Your task to perform on an android device: open app "Pluto TV - Live TV and Movies" (install if not already installed), go to login, and select forgot password Image 0: 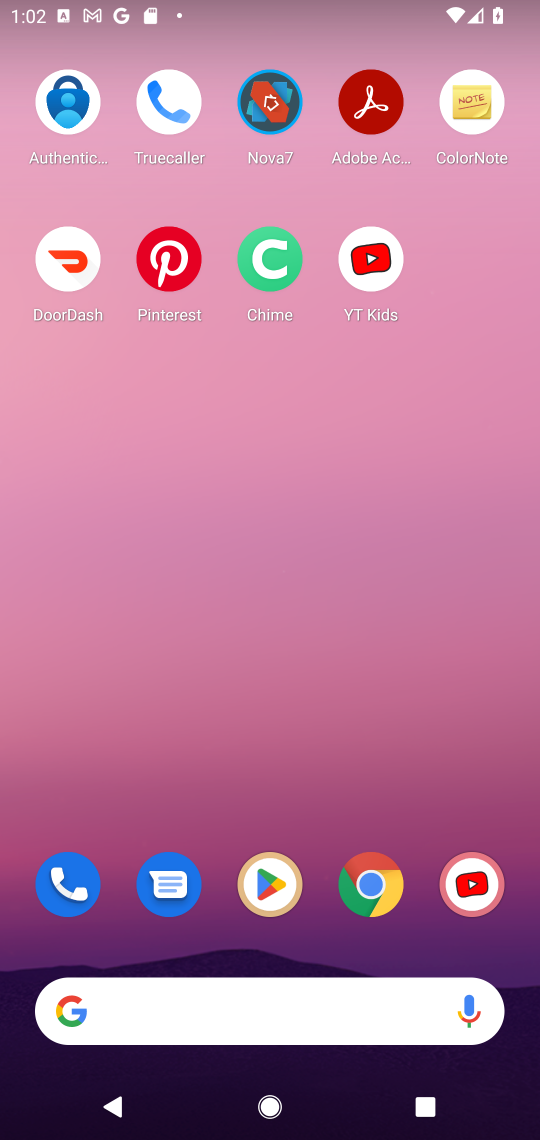
Step 0: drag from (180, 1025) to (234, 329)
Your task to perform on an android device: open app "Pluto TV - Live TV and Movies" (install if not already installed), go to login, and select forgot password Image 1: 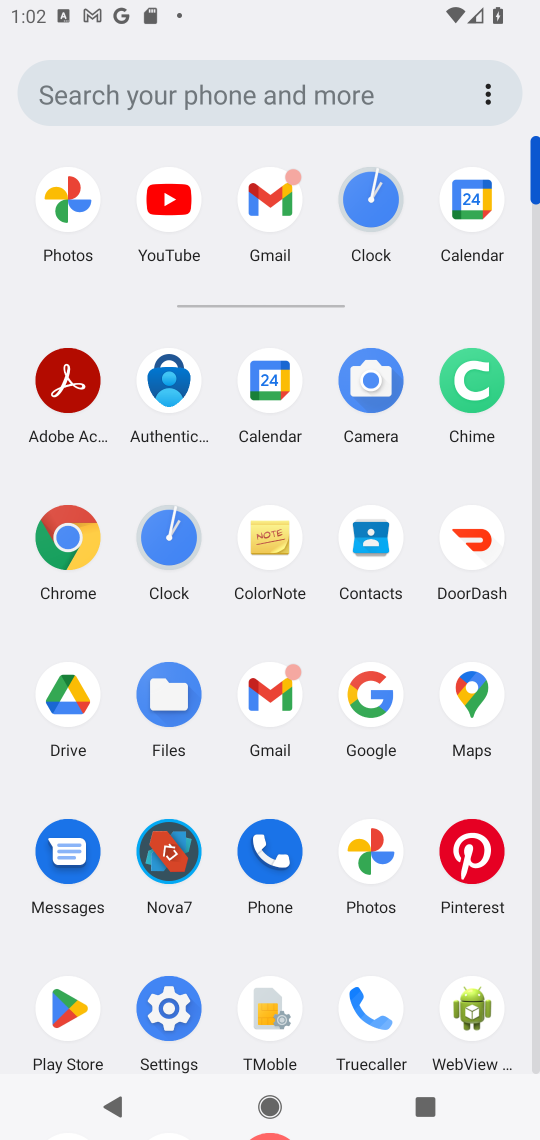
Step 1: click (64, 1015)
Your task to perform on an android device: open app "Pluto TV - Live TV and Movies" (install if not already installed), go to login, and select forgot password Image 2: 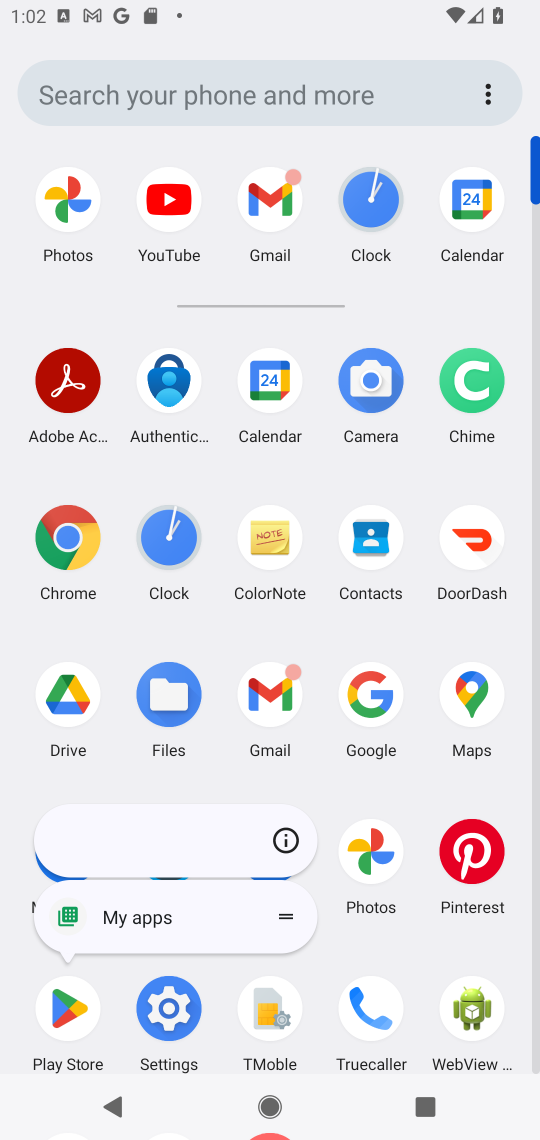
Step 2: click (64, 1015)
Your task to perform on an android device: open app "Pluto TV - Live TV and Movies" (install if not already installed), go to login, and select forgot password Image 3: 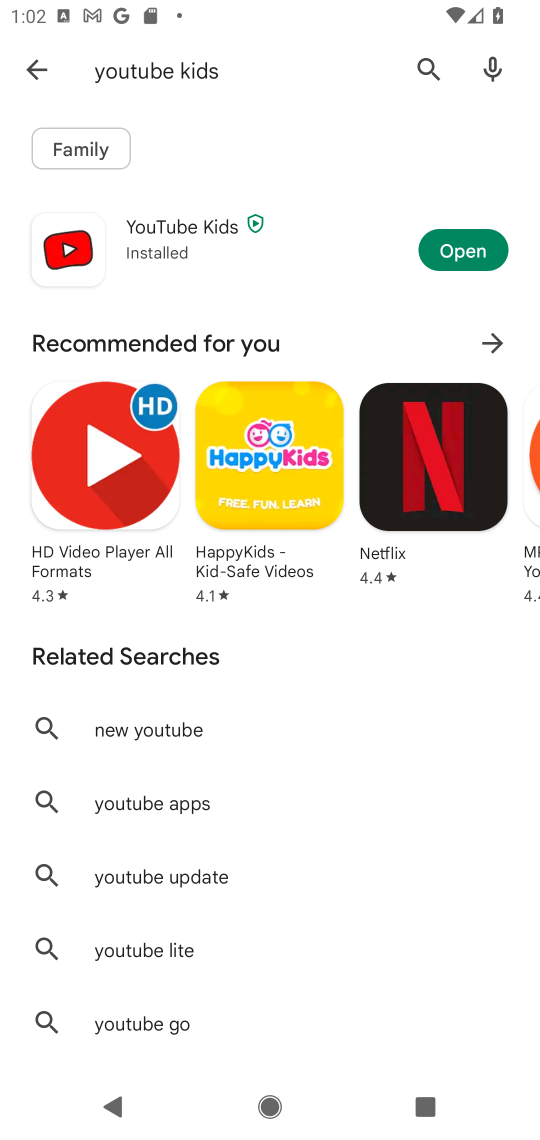
Step 3: press back button
Your task to perform on an android device: open app "Pluto TV - Live TV and Movies" (install if not already installed), go to login, and select forgot password Image 4: 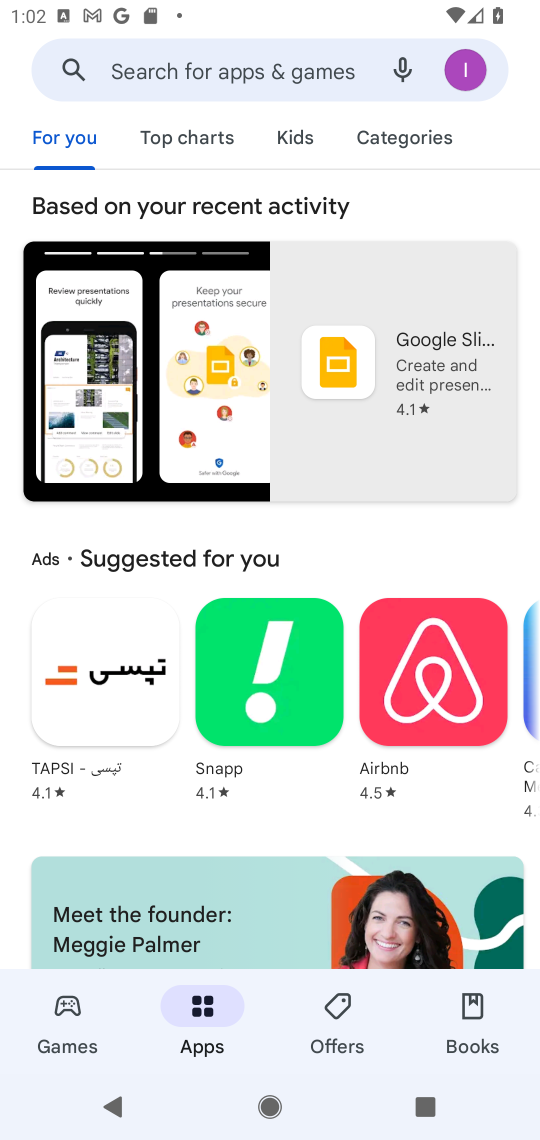
Step 4: click (209, 65)
Your task to perform on an android device: open app "Pluto TV - Live TV and Movies" (install if not already installed), go to login, and select forgot password Image 5: 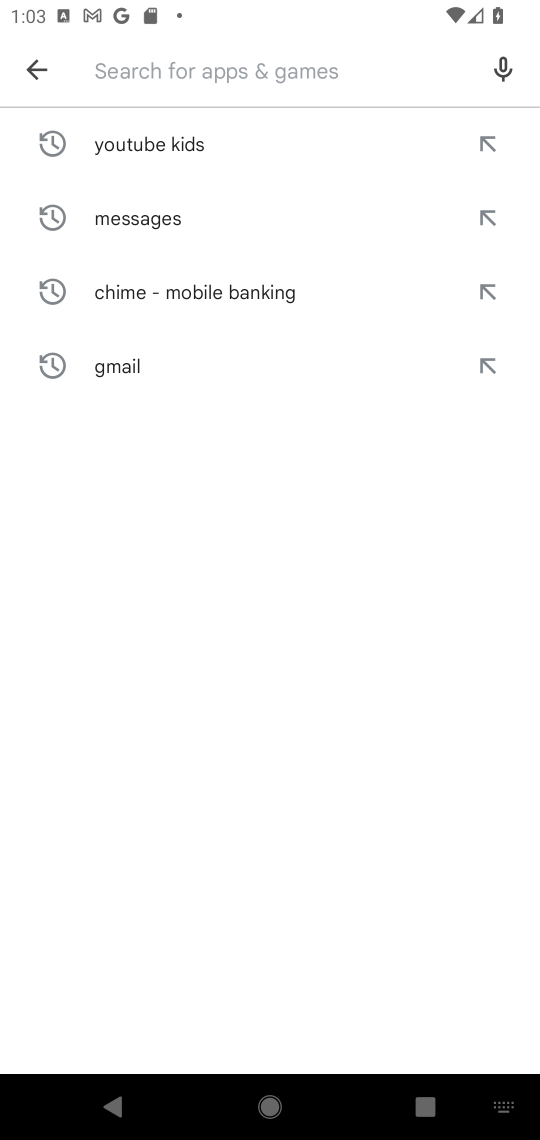
Step 5: type "Pluto TV - Live TV and Movies"
Your task to perform on an android device: open app "Pluto TV - Live TV and Movies" (install if not already installed), go to login, and select forgot password Image 6: 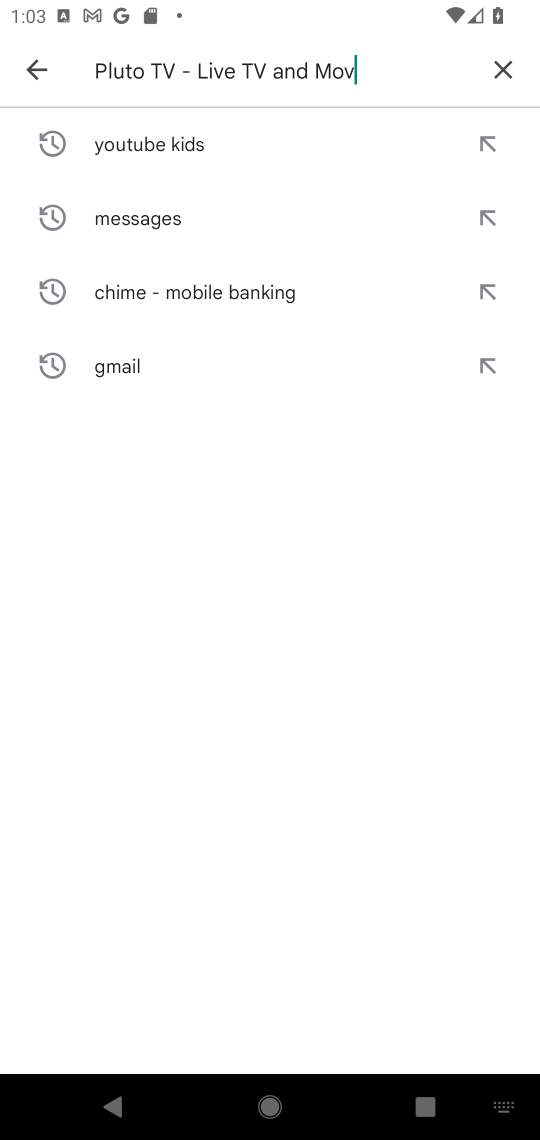
Step 6: type ""
Your task to perform on an android device: open app "Pluto TV - Live TV and Movies" (install if not already installed), go to login, and select forgot password Image 7: 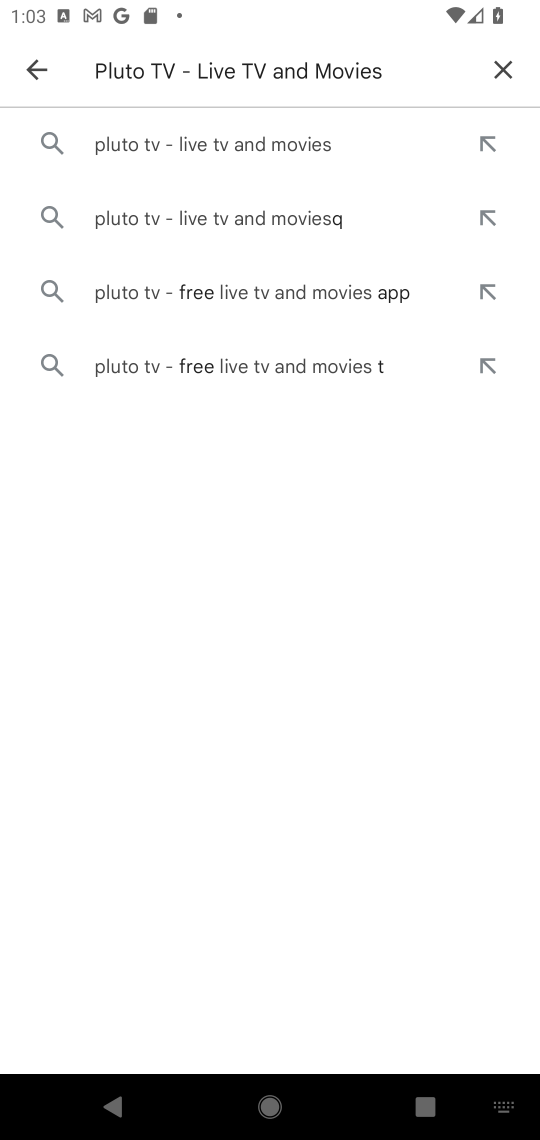
Step 7: click (268, 147)
Your task to perform on an android device: open app "Pluto TV - Live TV and Movies" (install if not already installed), go to login, and select forgot password Image 8: 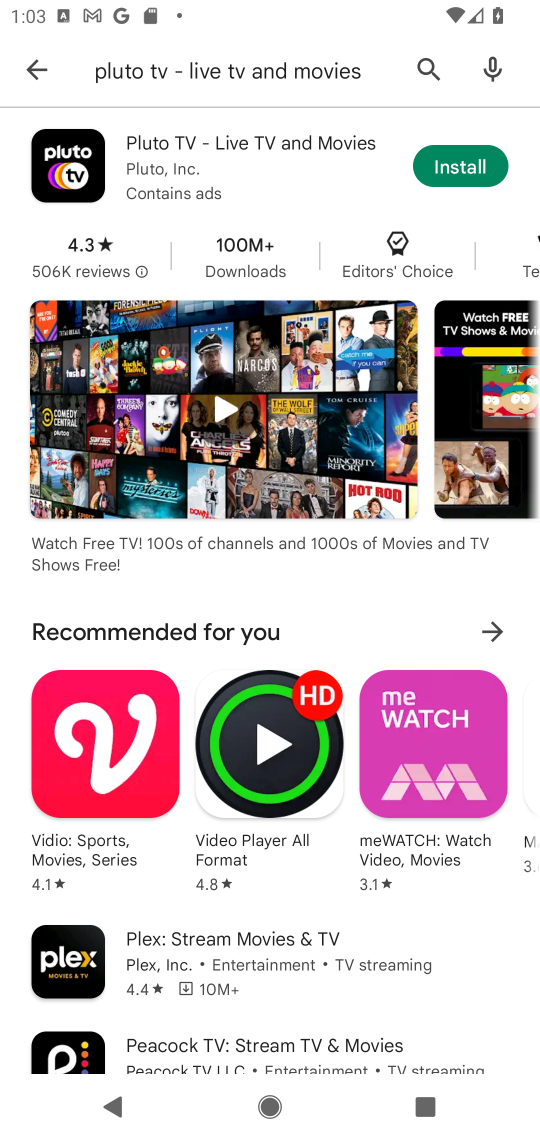
Step 8: click (462, 169)
Your task to perform on an android device: open app "Pluto TV - Live TV and Movies" (install if not already installed), go to login, and select forgot password Image 9: 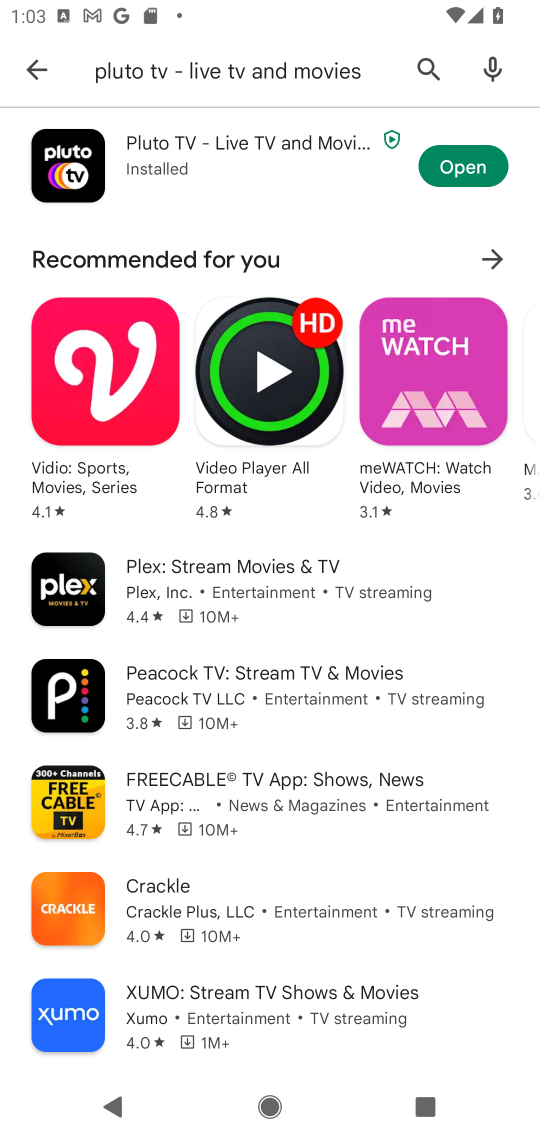
Step 9: click (460, 167)
Your task to perform on an android device: open app "Pluto TV - Live TV and Movies" (install if not already installed), go to login, and select forgot password Image 10: 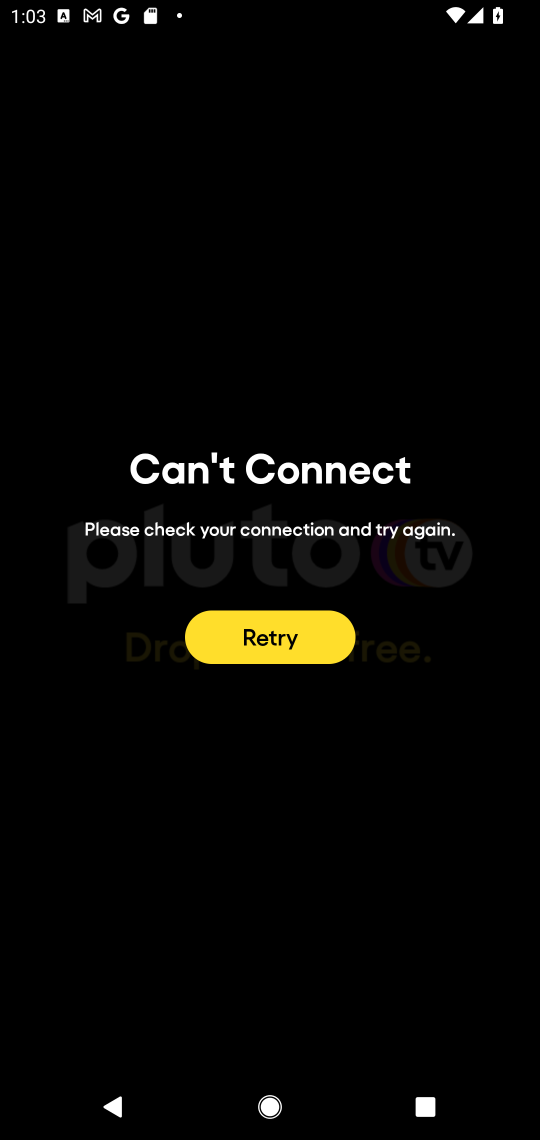
Step 10: click (231, 651)
Your task to perform on an android device: open app "Pluto TV - Live TV and Movies" (install if not already installed), go to login, and select forgot password Image 11: 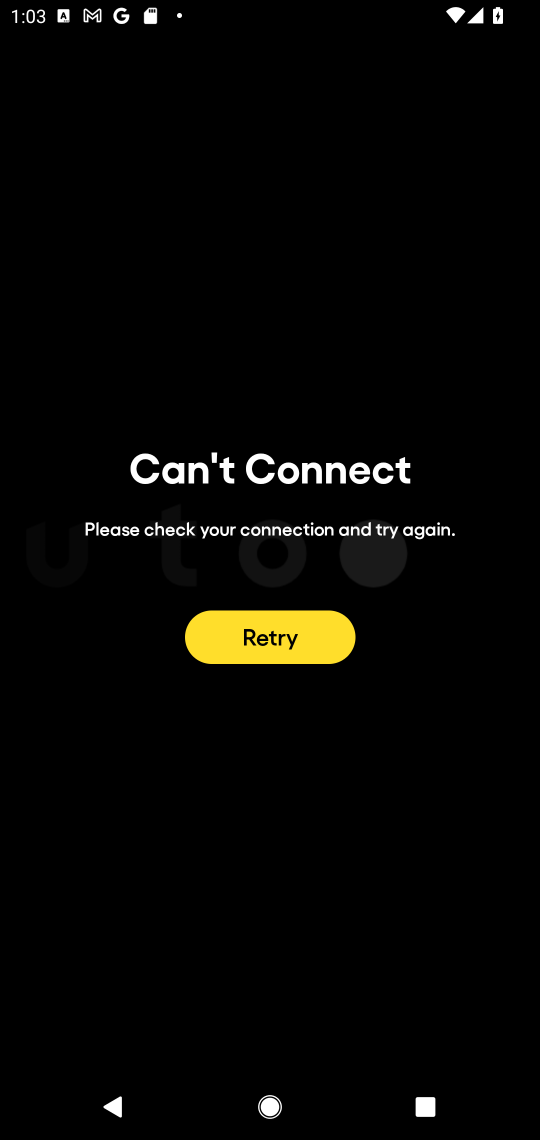
Step 11: click (231, 651)
Your task to perform on an android device: open app "Pluto TV - Live TV and Movies" (install if not already installed), go to login, and select forgot password Image 12: 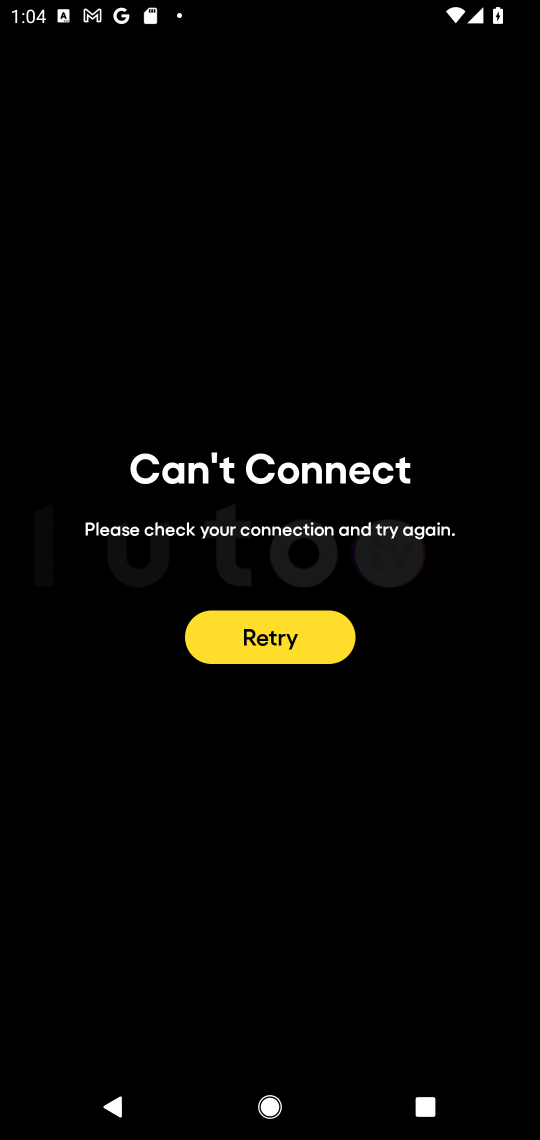
Step 12: task complete